Your task to perform on an android device: set default search engine in the chrome app Image 0: 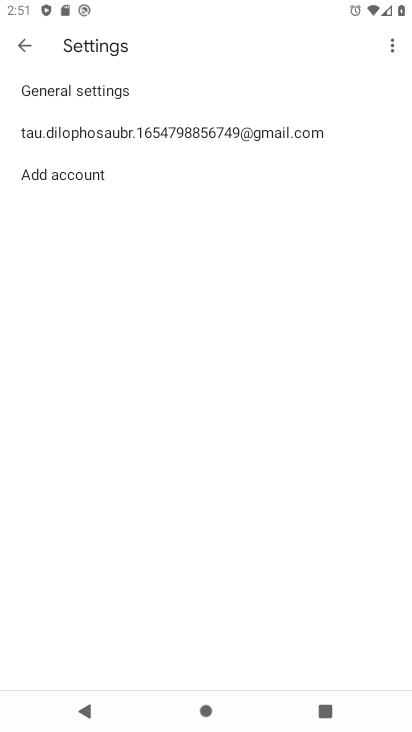
Step 0: press home button
Your task to perform on an android device: set default search engine in the chrome app Image 1: 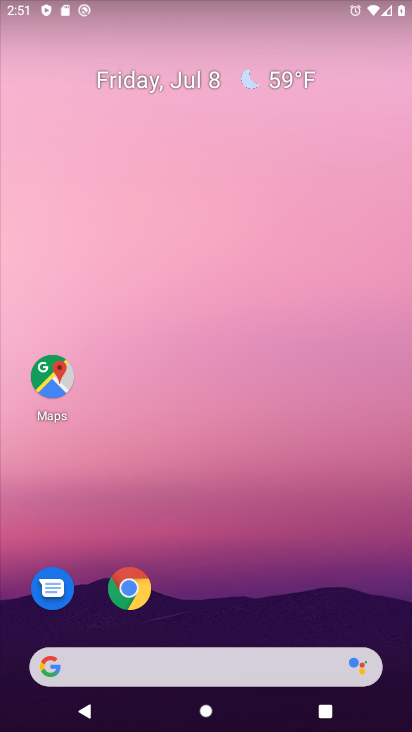
Step 1: click (137, 590)
Your task to perform on an android device: set default search engine in the chrome app Image 2: 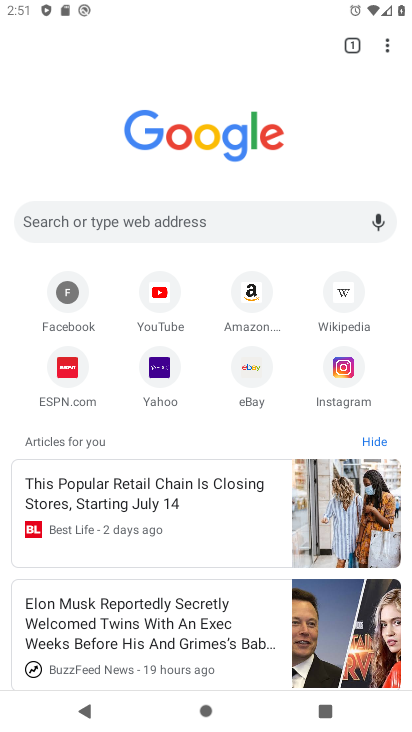
Step 2: click (383, 36)
Your task to perform on an android device: set default search engine in the chrome app Image 3: 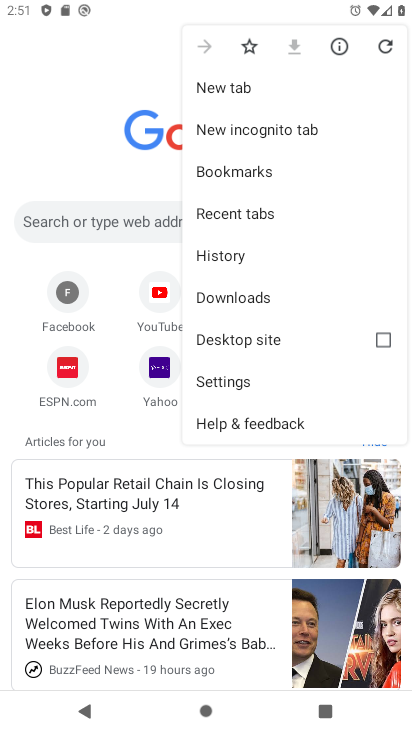
Step 3: click (243, 376)
Your task to perform on an android device: set default search engine in the chrome app Image 4: 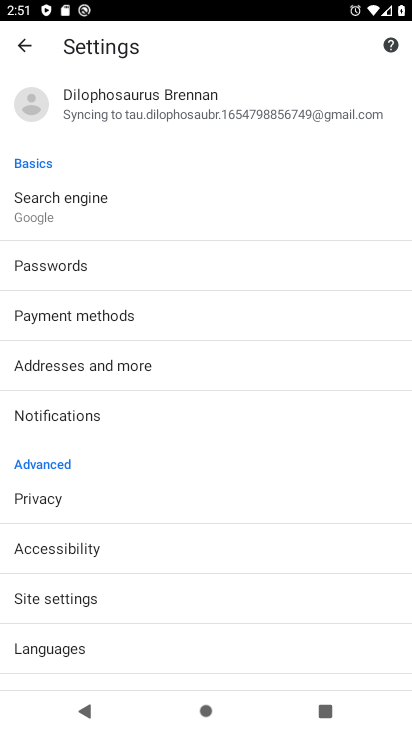
Step 4: drag from (117, 594) to (155, 459)
Your task to perform on an android device: set default search engine in the chrome app Image 5: 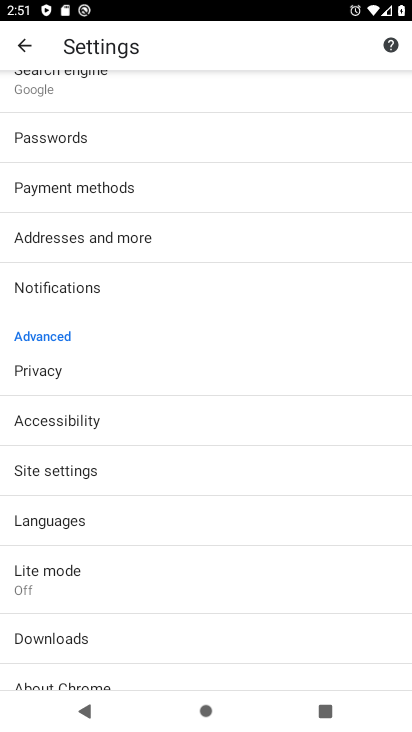
Step 5: drag from (111, 288) to (111, 494)
Your task to perform on an android device: set default search engine in the chrome app Image 6: 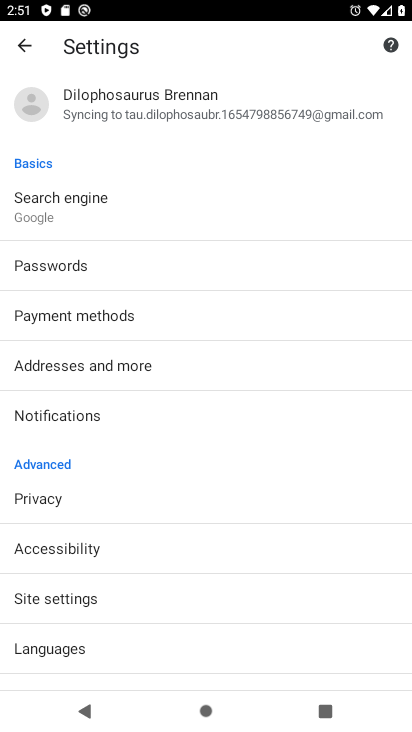
Step 6: click (88, 214)
Your task to perform on an android device: set default search engine in the chrome app Image 7: 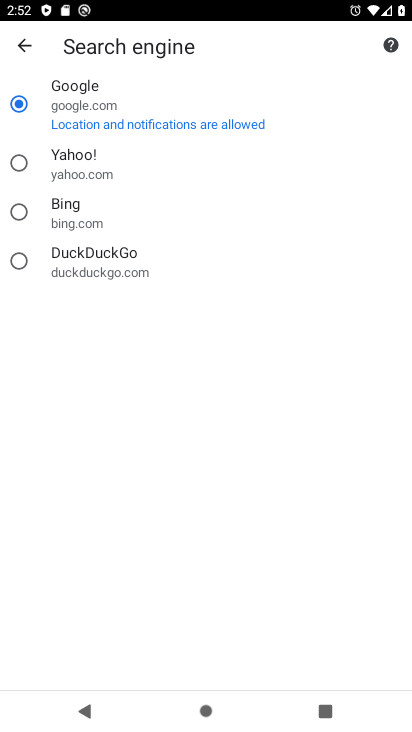
Step 7: click (130, 119)
Your task to perform on an android device: set default search engine in the chrome app Image 8: 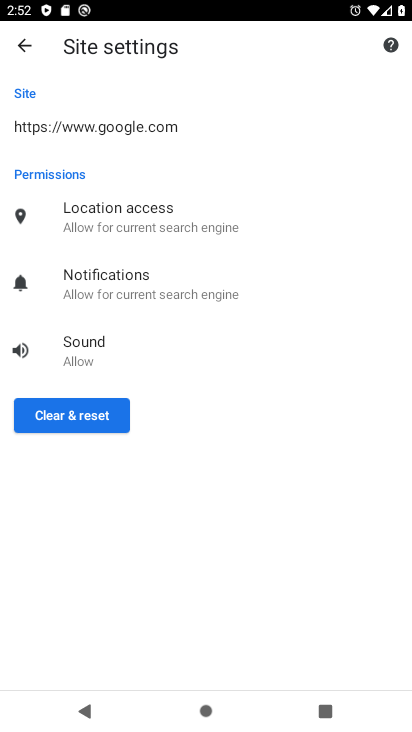
Step 8: click (65, 424)
Your task to perform on an android device: set default search engine in the chrome app Image 9: 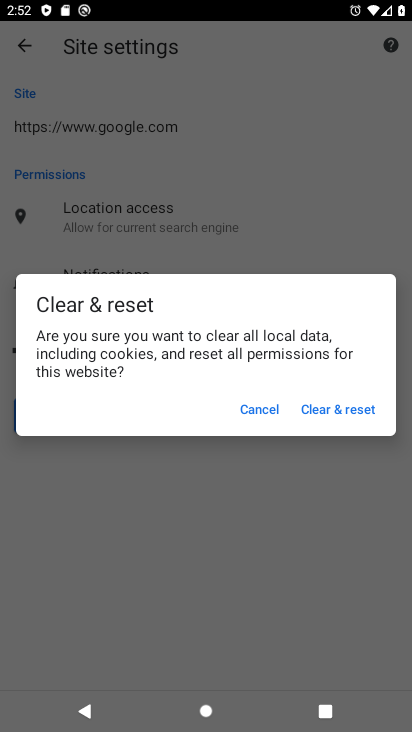
Step 9: click (362, 405)
Your task to perform on an android device: set default search engine in the chrome app Image 10: 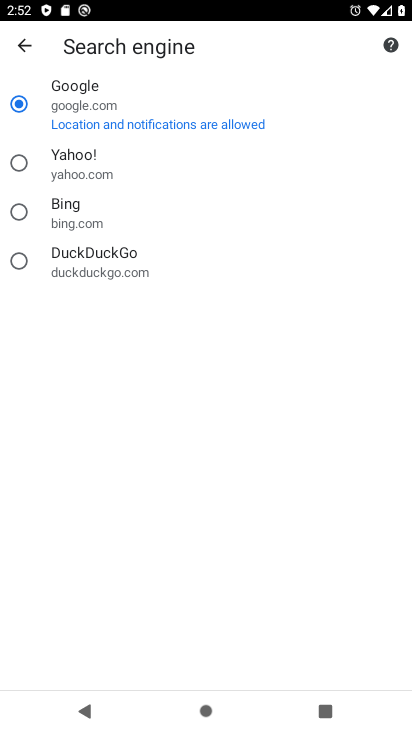
Step 10: task complete